Your task to perform on an android device: turn on javascript in the chrome app Image 0: 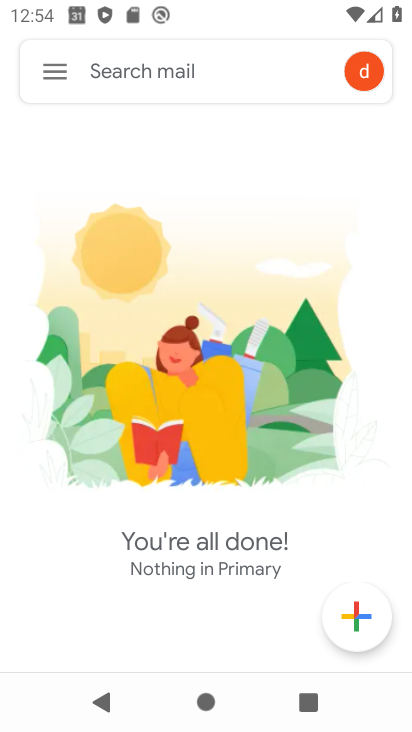
Step 0: press home button
Your task to perform on an android device: turn on javascript in the chrome app Image 1: 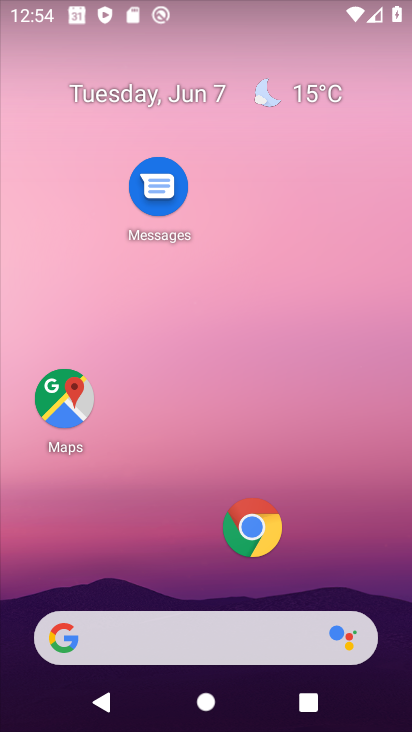
Step 1: click (253, 531)
Your task to perform on an android device: turn on javascript in the chrome app Image 2: 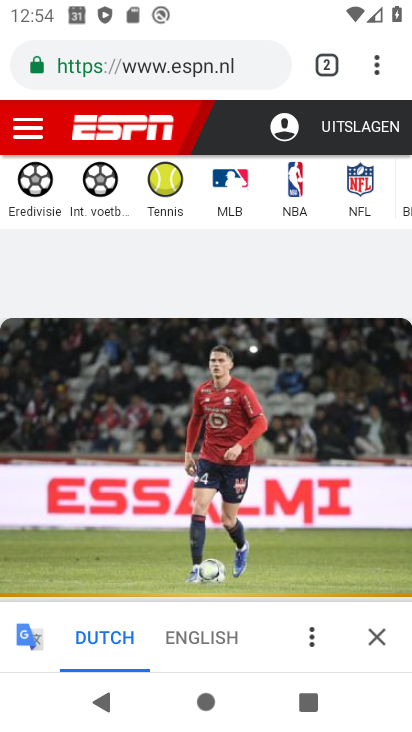
Step 2: click (371, 66)
Your task to perform on an android device: turn on javascript in the chrome app Image 3: 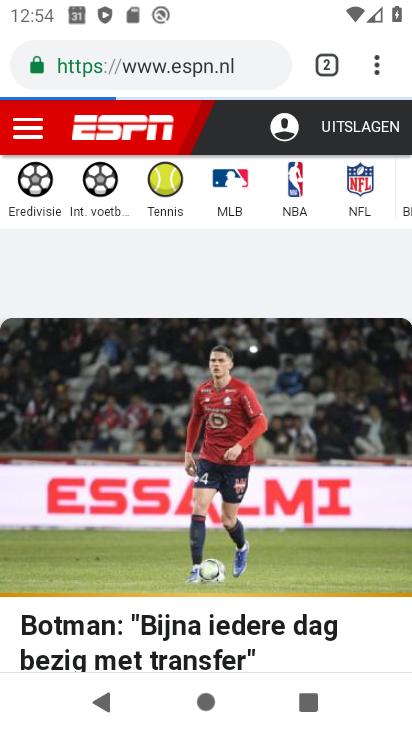
Step 3: click (377, 67)
Your task to perform on an android device: turn on javascript in the chrome app Image 4: 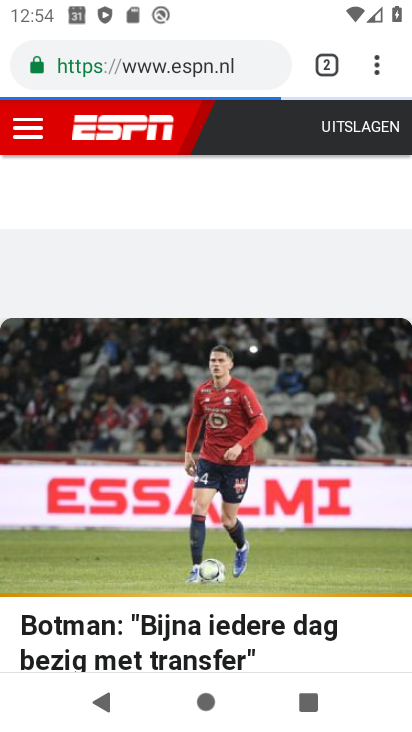
Step 4: click (377, 67)
Your task to perform on an android device: turn on javascript in the chrome app Image 5: 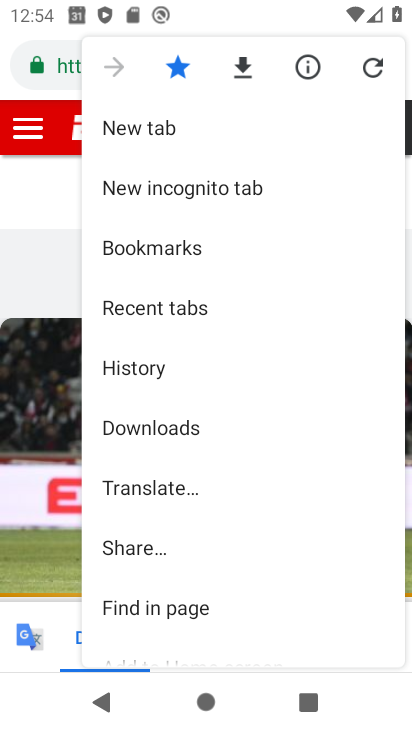
Step 5: drag from (154, 616) to (148, 213)
Your task to perform on an android device: turn on javascript in the chrome app Image 6: 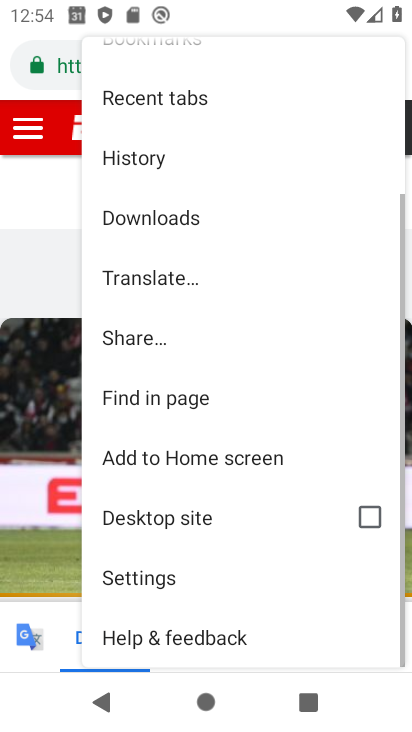
Step 6: click (148, 580)
Your task to perform on an android device: turn on javascript in the chrome app Image 7: 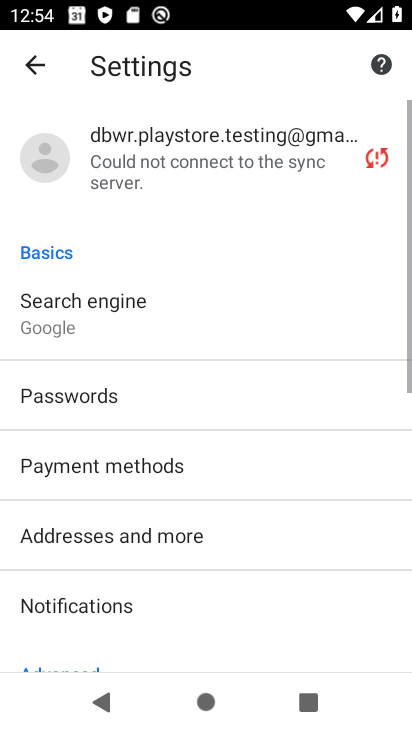
Step 7: drag from (148, 580) to (148, 198)
Your task to perform on an android device: turn on javascript in the chrome app Image 8: 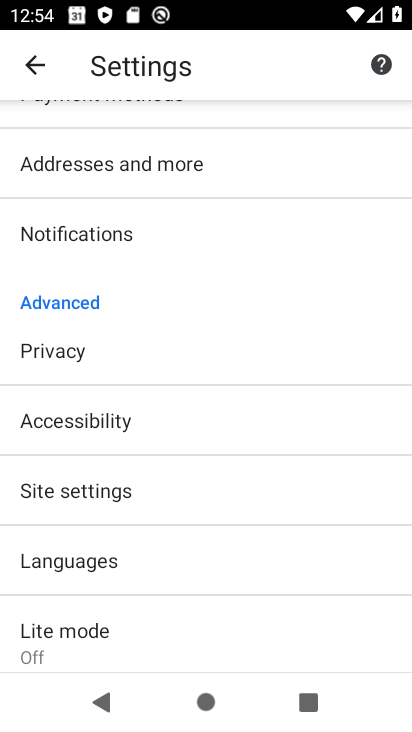
Step 8: click (88, 491)
Your task to perform on an android device: turn on javascript in the chrome app Image 9: 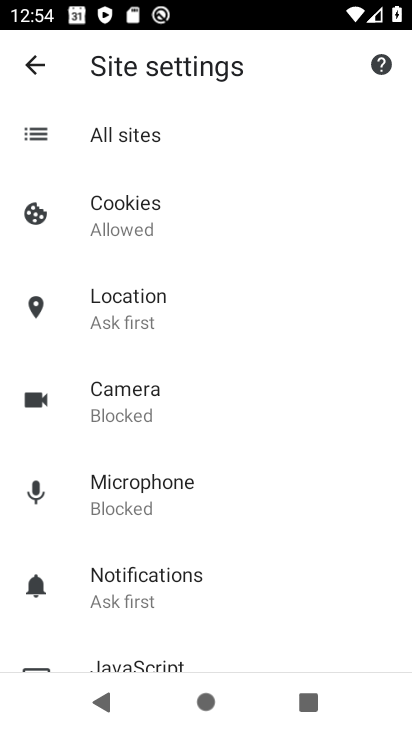
Step 9: drag from (172, 652) to (171, 248)
Your task to perform on an android device: turn on javascript in the chrome app Image 10: 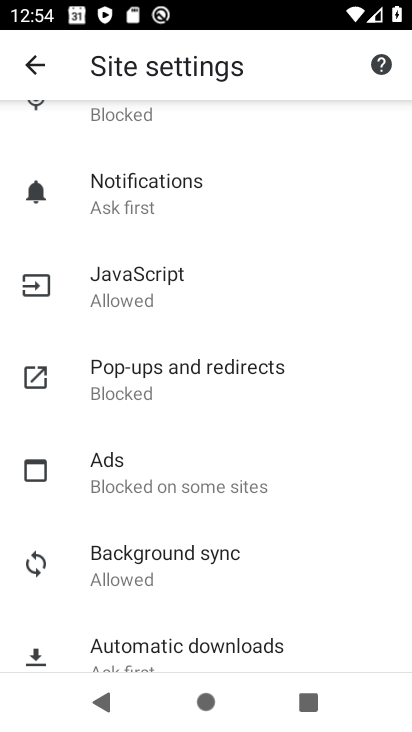
Step 10: click (172, 296)
Your task to perform on an android device: turn on javascript in the chrome app Image 11: 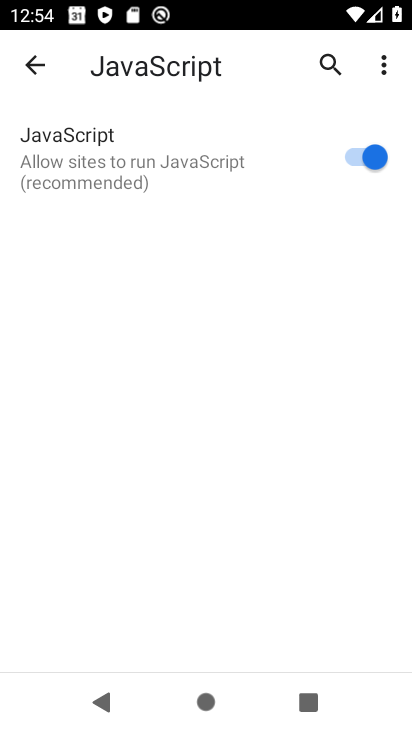
Step 11: task complete